Your task to perform on an android device: add a label to a message in the gmail app Image 0: 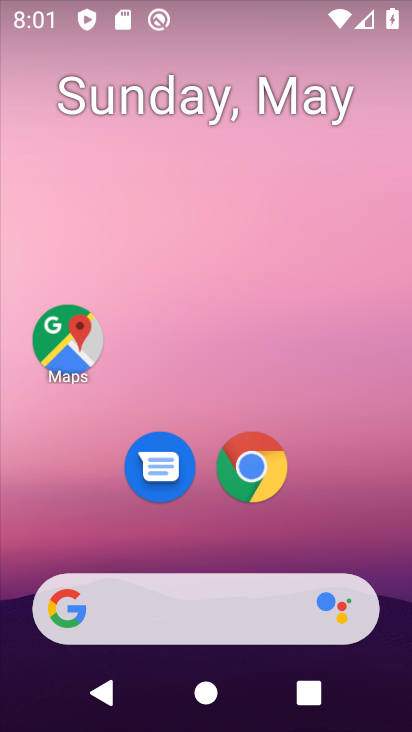
Step 0: drag from (202, 542) to (278, 10)
Your task to perform on an android device: add a label to a message in the gmail app Image 1: 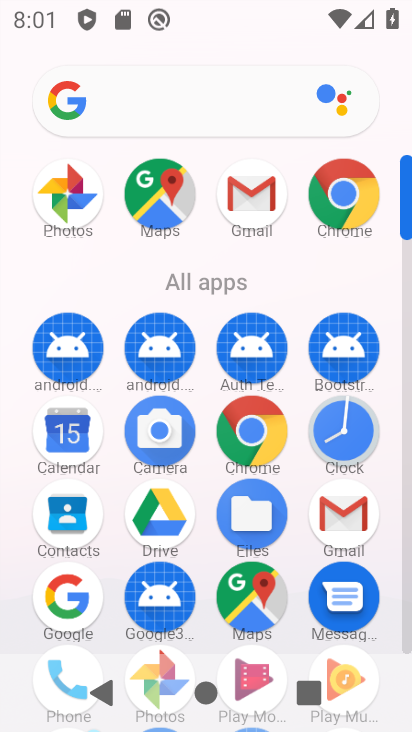
Step 1: click (260, 192)
Your task to perform on an android device: add a label to a message in the gmail app Image 2: 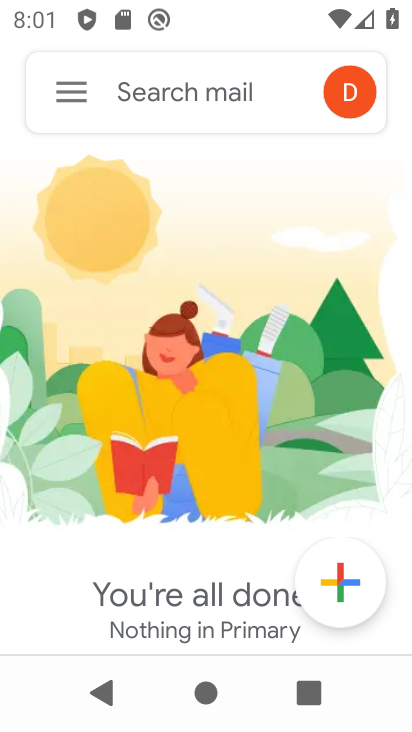
Step 2: click (72, 88)
Your task to perform on an android device: add a label to a message in the gmail app Image 3: 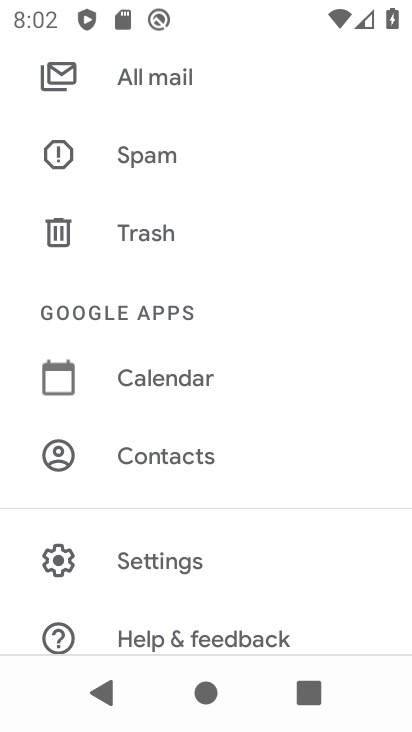
Step 3: click (109, 94)
Your task to perform on an android device: add a label to a message in the gmail app Image 4: 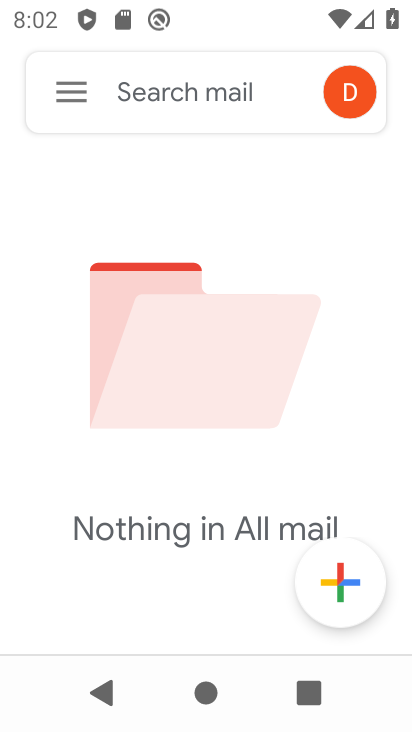
Step 4: task complete